Your task to perform on an android device: turn pop-ups on in chrome Image 0: 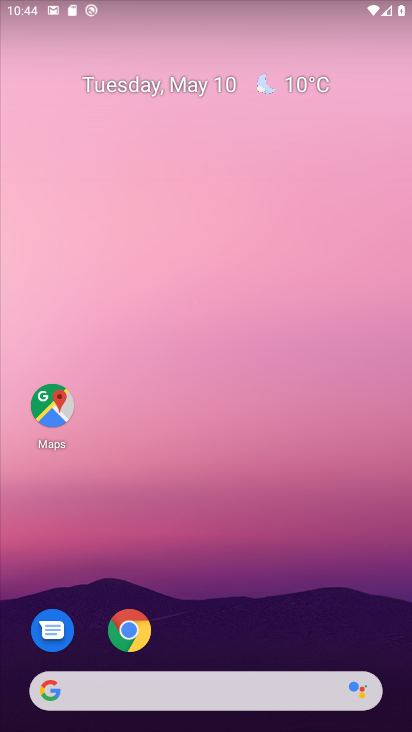
Step 0: drag from (263, 532) to (292, 42)
Your task to perform on an android device: turn pop-ups on in chrome Image 1: 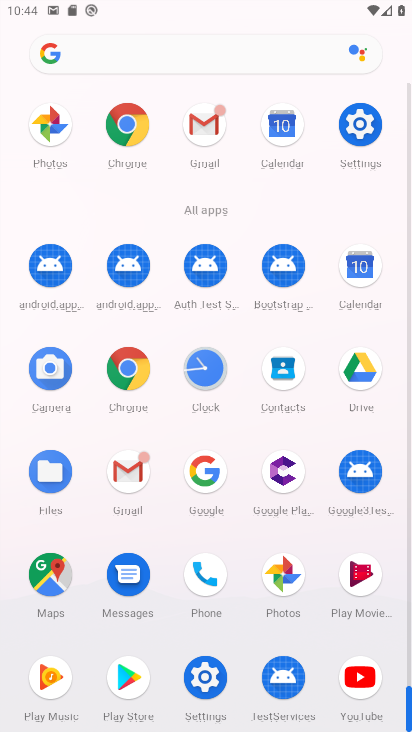
Step 1: click (122, 364)
Your task to perform on an android device: turn pop-ups on in chrome Image 2: 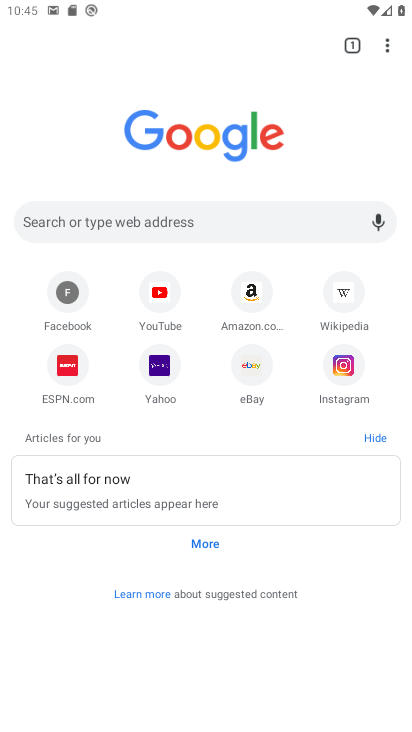
Step 2: click (394, 41)
Your task to perform on an android device: turn pop-ups on in chrome Image 3: 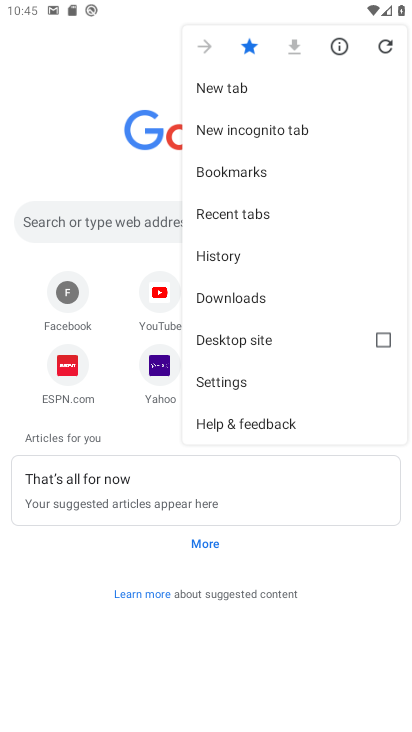
Step 3: click (236, 383)
Your task to perform on an android device: turn pop-ups on in chrome Image 4: 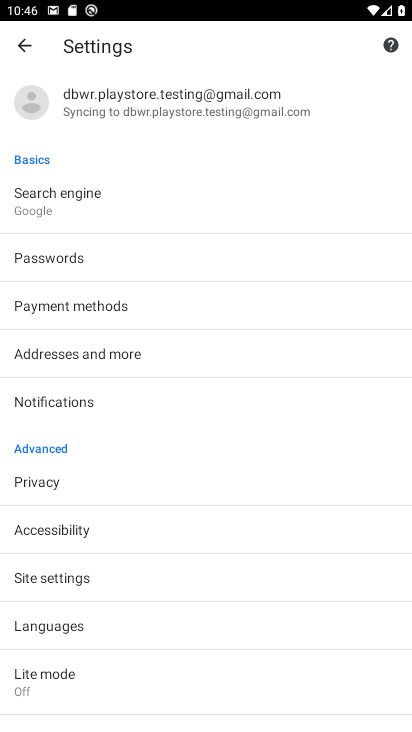
Step 4: click (117, 579)
Your task to perform on an android device: turn pop-ups on in chrome Image 5: 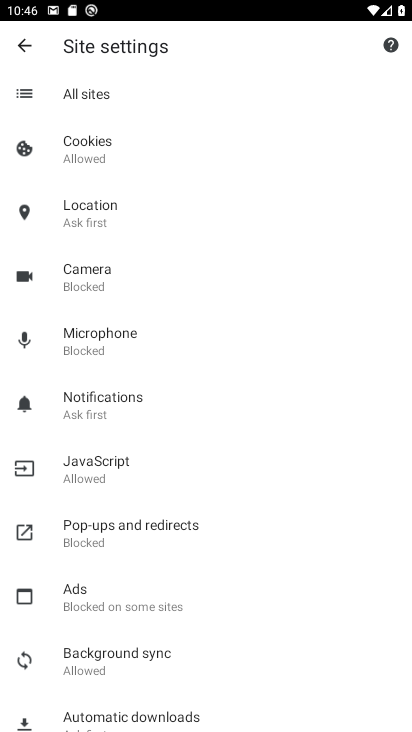
Step 5: drag from (235, 525) to (255, 485)
Your task to perform on an android device: turn pop-ups on in chrome Image 6: 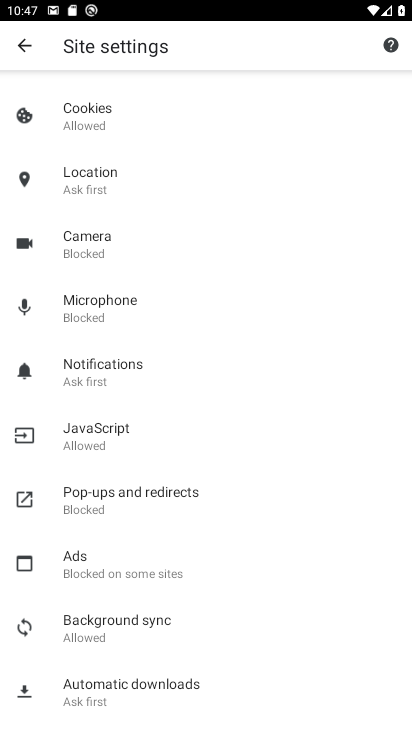
Step 6: click (151, 499)
Your task to perform on an android device: turn pop-ups on in chrome Image 7: 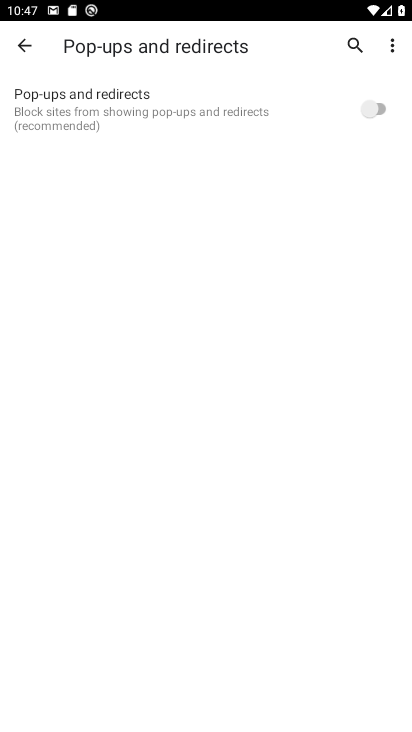
Step 7: click (376, 103)
Your task to perform on an android device: turn pop-ups on in chrome Image 8: 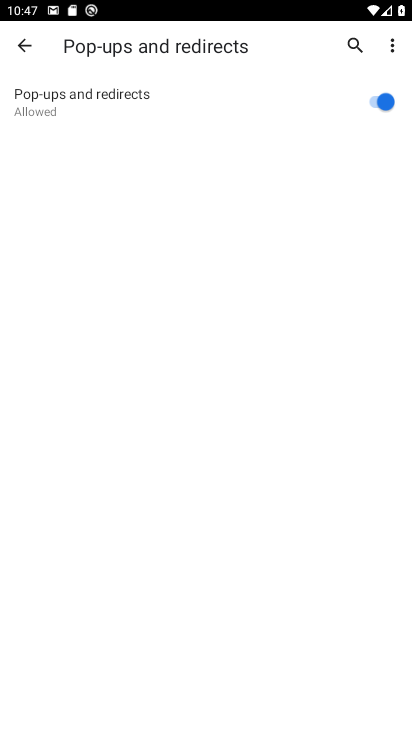
Step 8: task complete